Your task to perform on an android device: Show me popular games on the Play Store Image 0: 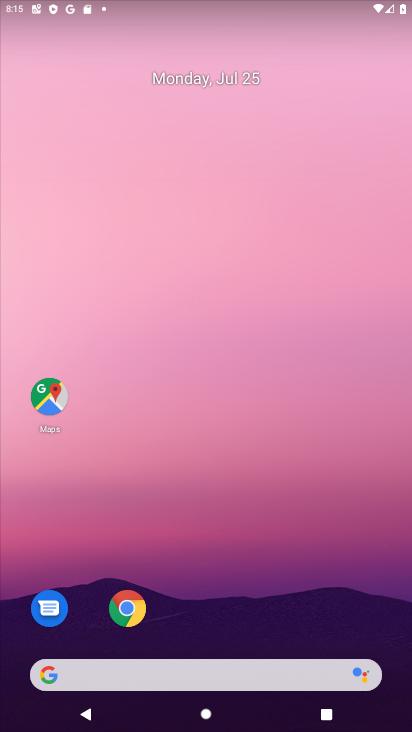
Step 0: drag from (310, 475) to (332, 225)
Your task to perform on an android device: Show me popular games on the Play Store Image 1: 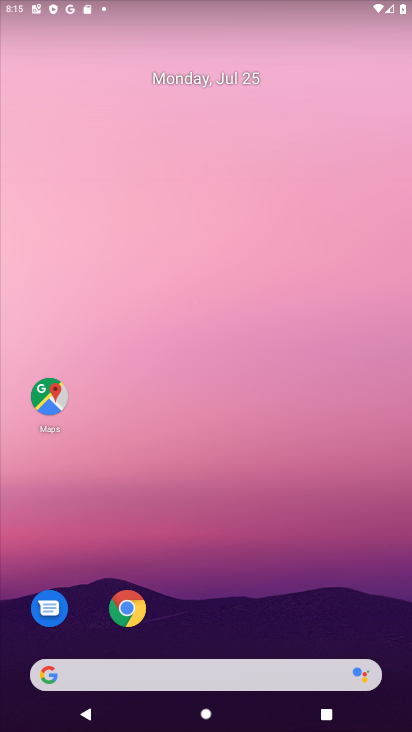
Step 1: drag from (251, 622) to (321, 38)
Your task to perform on an android device: Show me popular games on the Play Store Image 2: 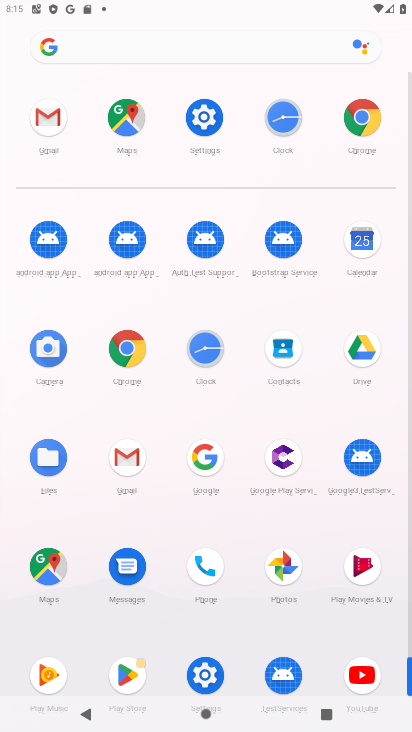
Step 2: click (131, 673)
Your task to perform on an android device: Show me popular games on the Play Store Image 3: 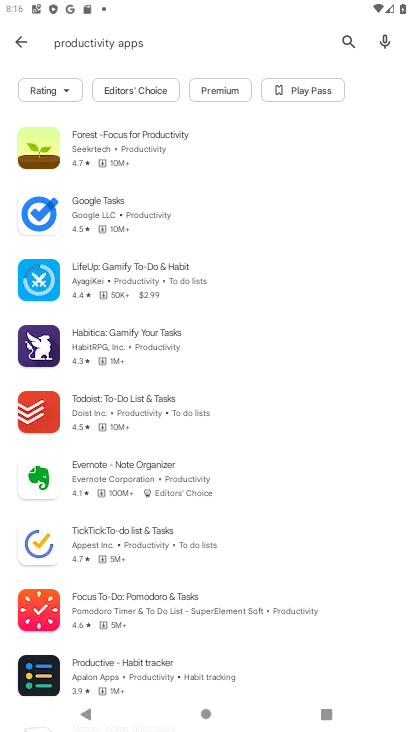
Step 3: click (19, 45)
Your task to perform on an android device: Show me popular games on the Play Store Image 4: 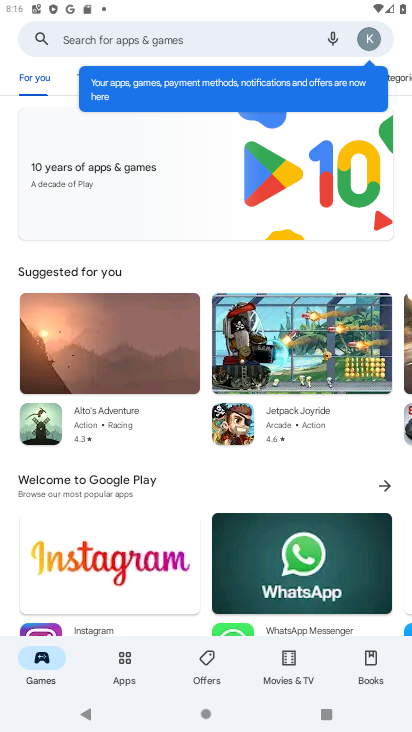
Step 4: click (187, 44)
Your task to perform on an android device: Show me popular games on the Play Store Image 5: 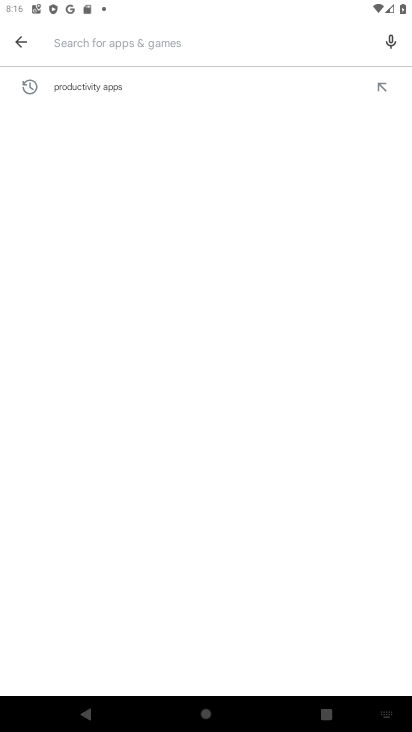
Step 5: click (22, 51)
Your task to perform on an android device: Show me popular games on the Play Store Image 6: 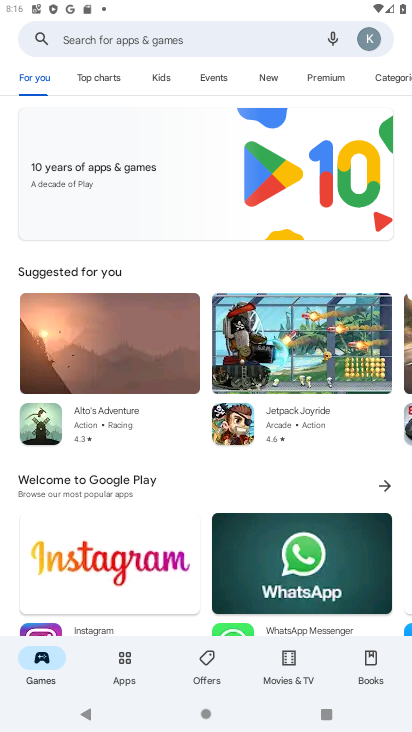
Step 6: task complete